Your task to perform on an android device: When is my next meeting? Image 0: 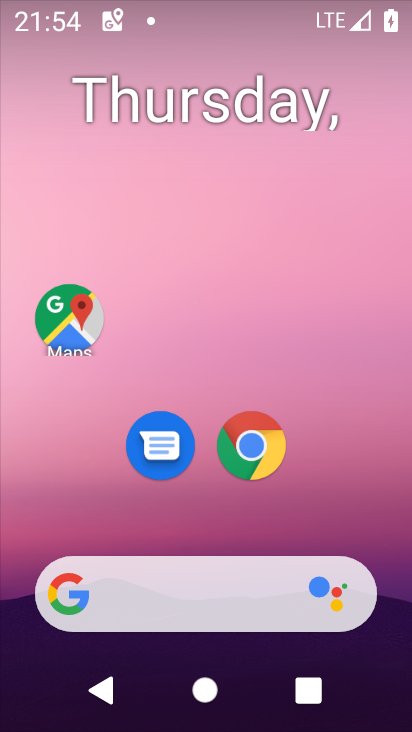
Step 0: drag from (190, 472) to (221, 87)
Your task to perform on an android device: When is my next meeting? Image 1: 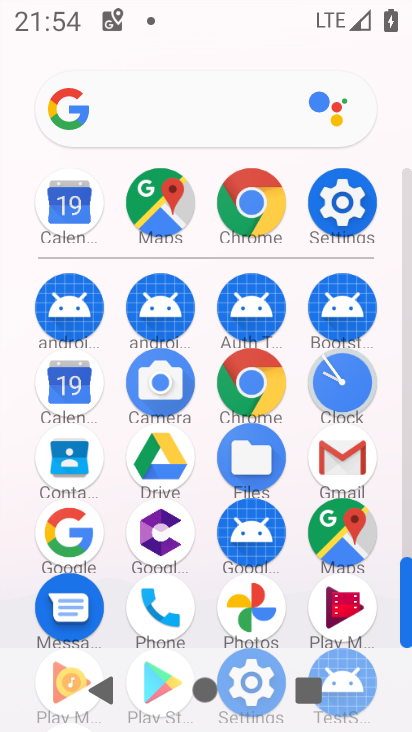
Step 1: drag from (203, 559) to (204, 271)
Your task to perform on an android device: When is my next meeting? Image 2: 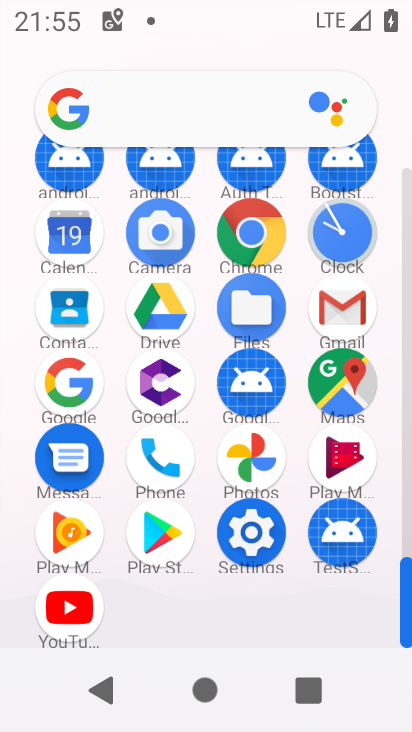
Step 2: drag from (303, 264) to (303, 648)
Your task to perform on an android device: When is my next meeting? Image 3: 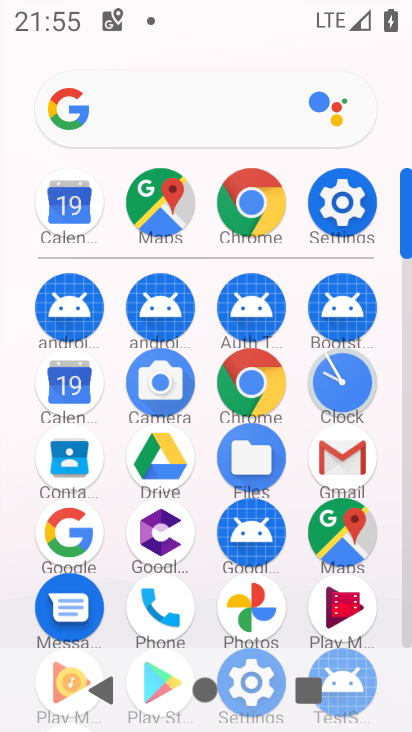
Step 3: click (80, 379)
Your task to perform on an android device: When is my next meeting? Image 4: 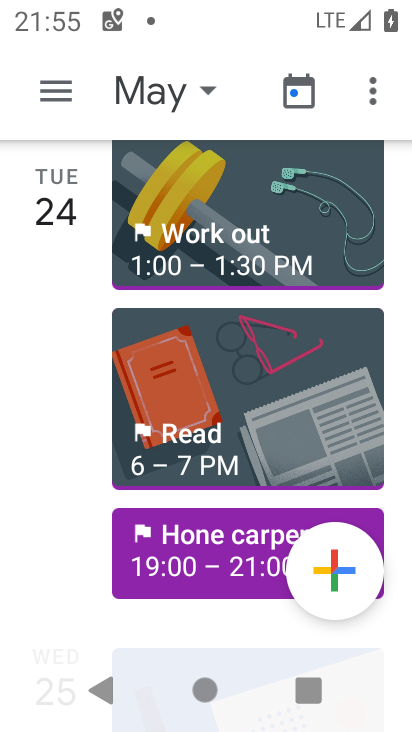
Step 4: drag from (193, 637) to (262, 260)
Your task to perform on an android device: When is my next meeting? Image 5: 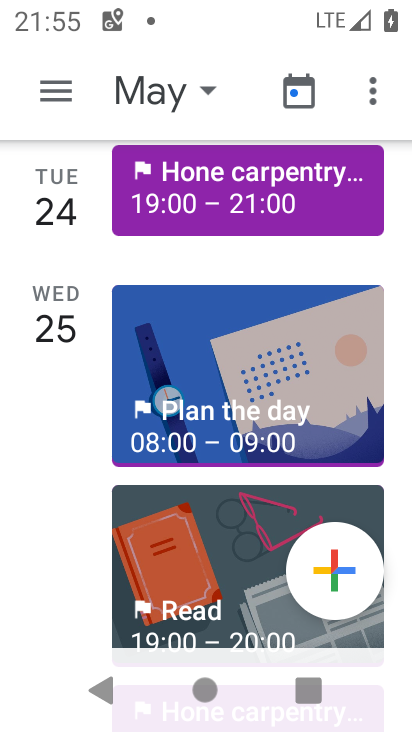
Step 5: click (179, 96)
Your task to perform on an android device: When is my next meeting? Image 6: 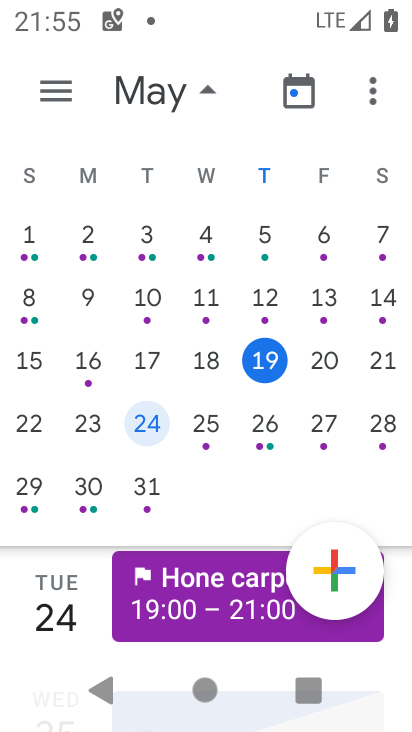
Step 6: click (327, 359)
Your task to perform on an android device: When is my next meeting? Image 7: 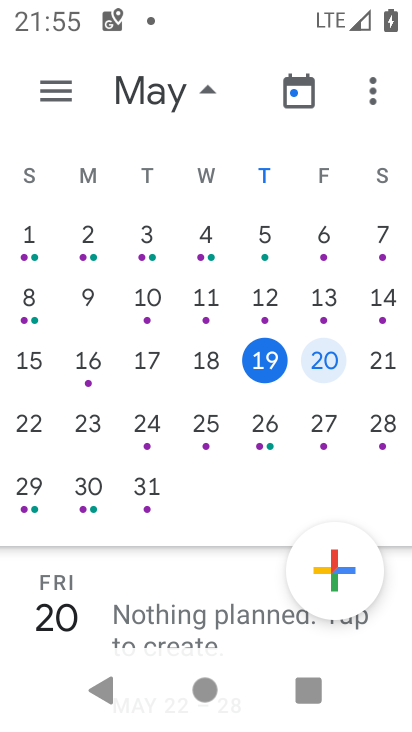
Step 7: task complete